Your task to perform on an android device: turn notification dots off Image 0: 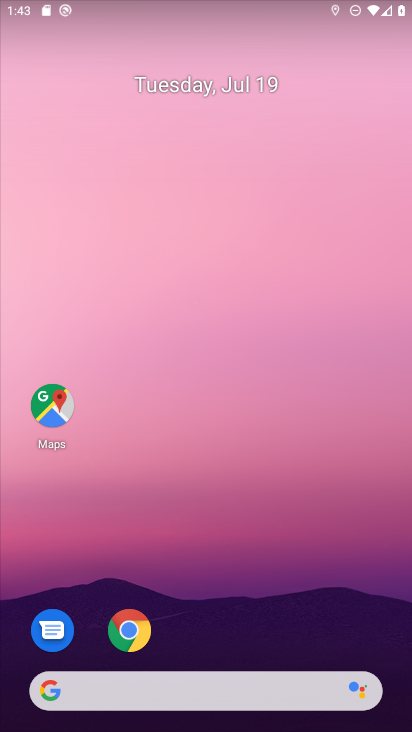
Step 0: press home button
Your task to perform on an android device: turn notification dots off Image 1: 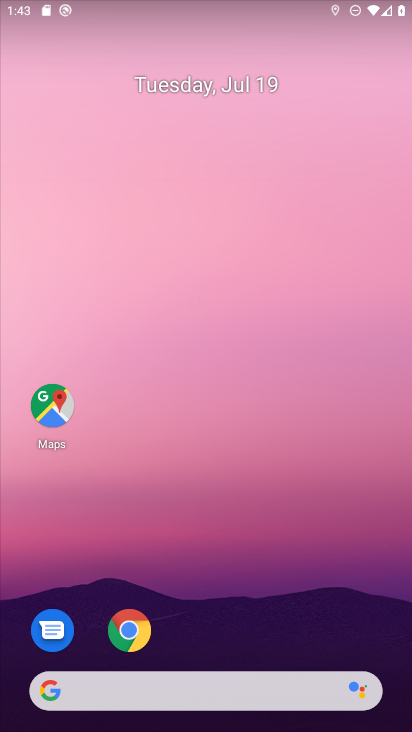
Step 1: drag from (182, 693) to (279, 103)
Your task to perform on an android device: turn notification dots off Image 2: 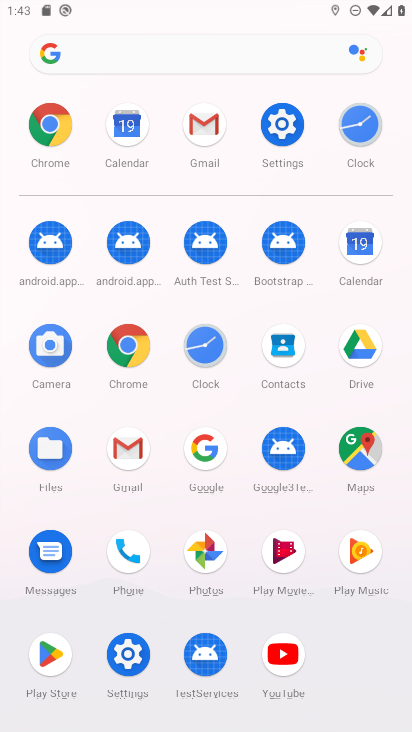
Step 2: click (280, 130)
Your task to perform on an android device: turn notification dots off Image 3: 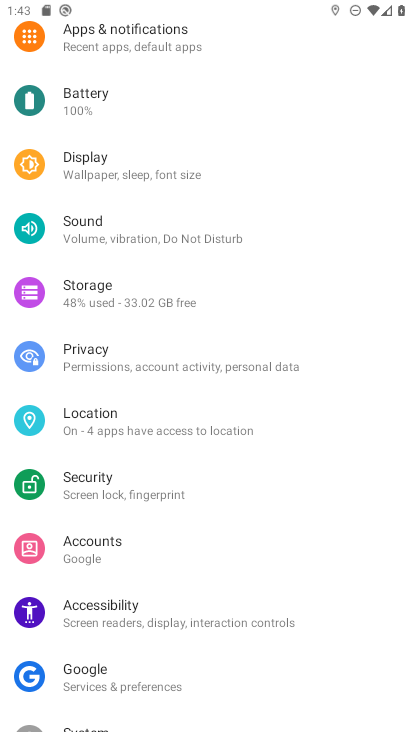
Step 3: click (149, 34)
Your task to perform on an android device: turn notification dots off Image 4: 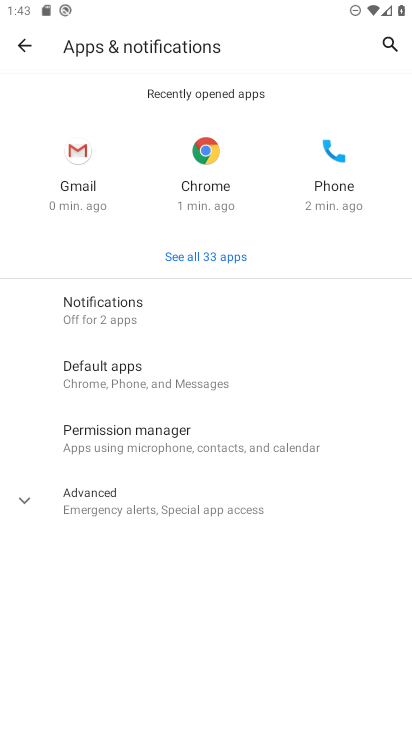
Step 4: click (106, 305)
Your task to perform on an android device: turn notification dots off Image 5: 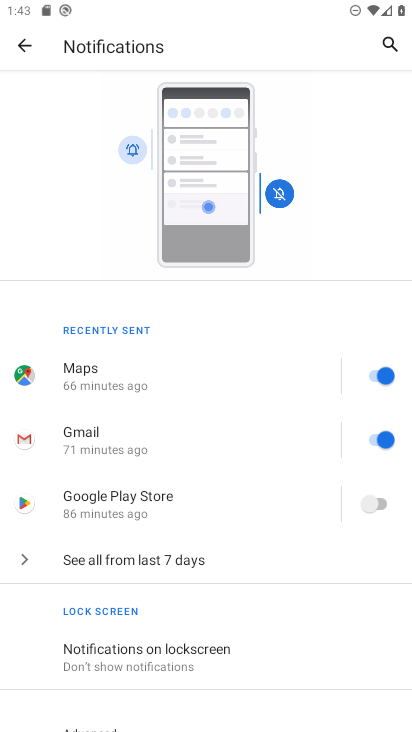
Step 5: drag from (205, 620) to (279, 114)
Your task to perform on an android device: turn notification dots off Image 6: 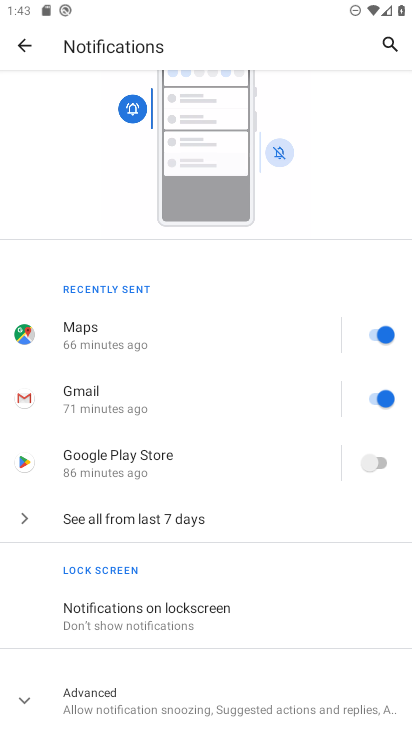
Step 6: click (155, 699)
Your task to perform on an android device: turn notification dots off Image 7: 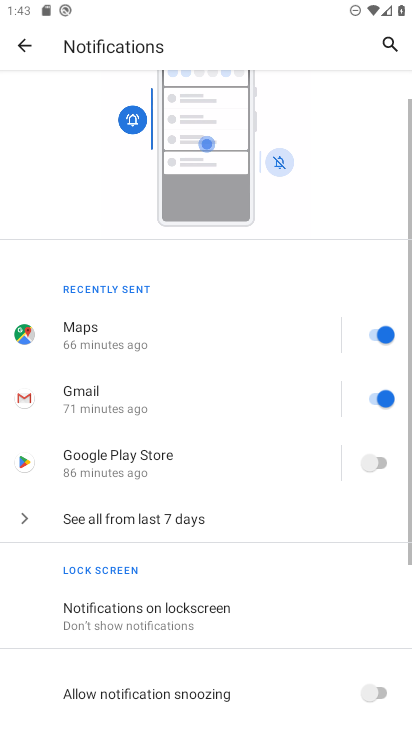
Step 7: task complete